Your task to perform on an android device: turn on javascript in the chrome app Image 0: 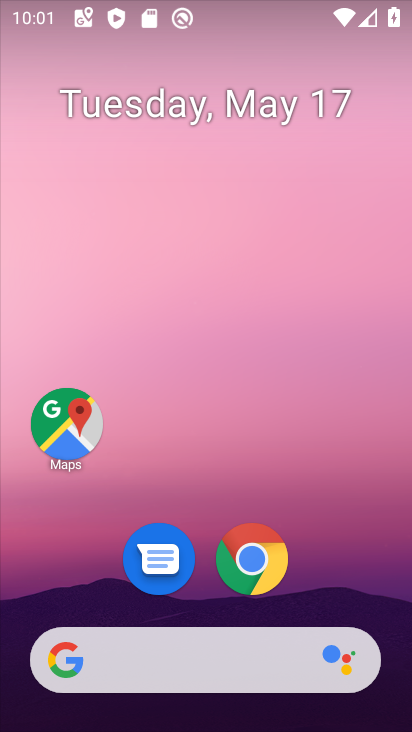
Step 0: click (271, 562)
Your task to perform on an android device: turn on javascript in the chrome app Image 1: 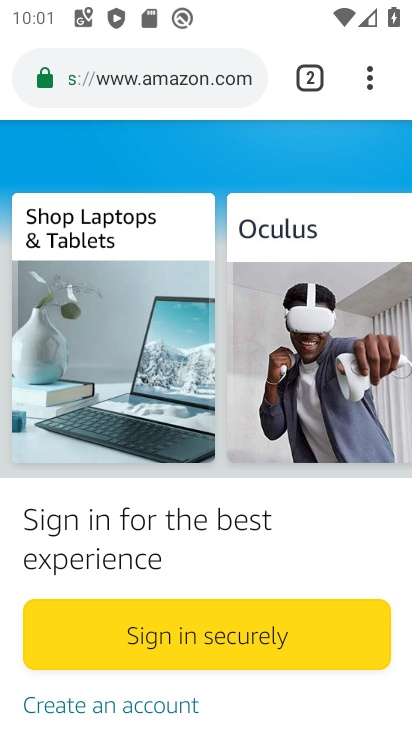
Step 1: click (374, 74)
Your task to perform on an android device: turn on javascript in the chrome app Image 2: 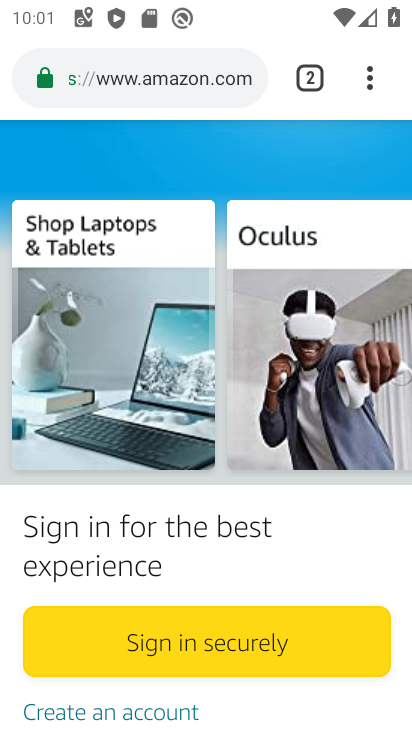
Step 2: click (370, 86)
Your task to perform on an android device: turn on javascript in the chrome app Image 3: 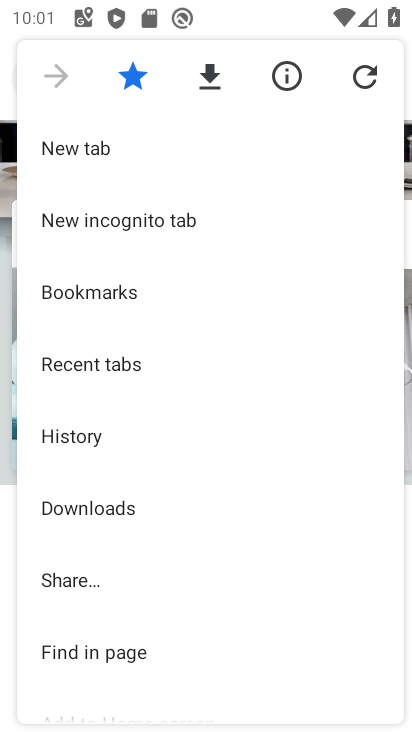
Step 3: drag from (159, 675) to (96, 82)
Your task to perform on an android device: turn on javascript in the chrome app Image 4: 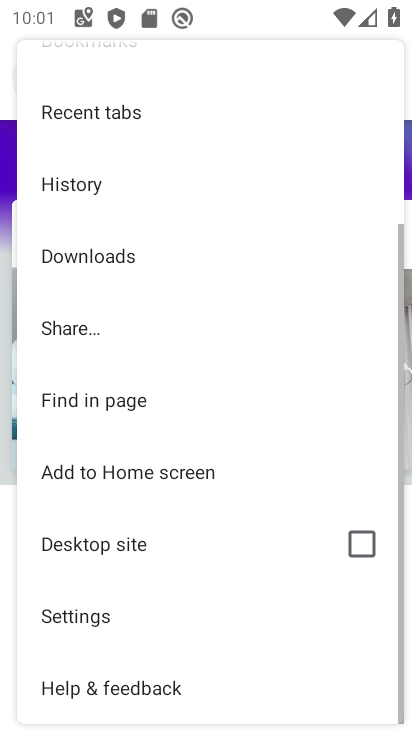
Step 4: click (75, 622)
Your task to perform on an android device: turn on javascript in the chrome app Image 5: 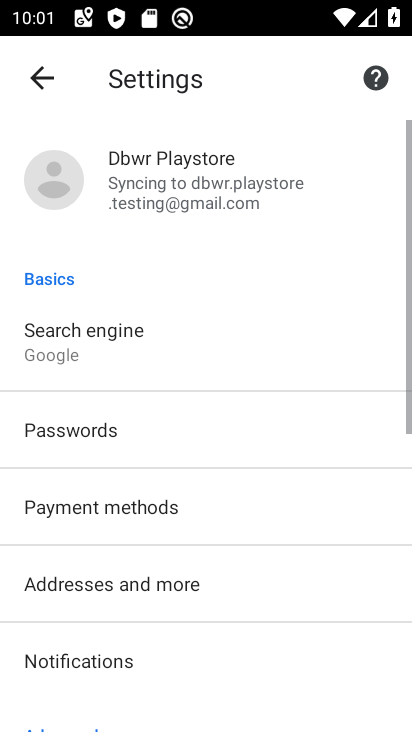
Step 5: drag from (217, 517) to (279, 6)
Your task to perform on an android device: turn on javascript in the chrome app Image 6: 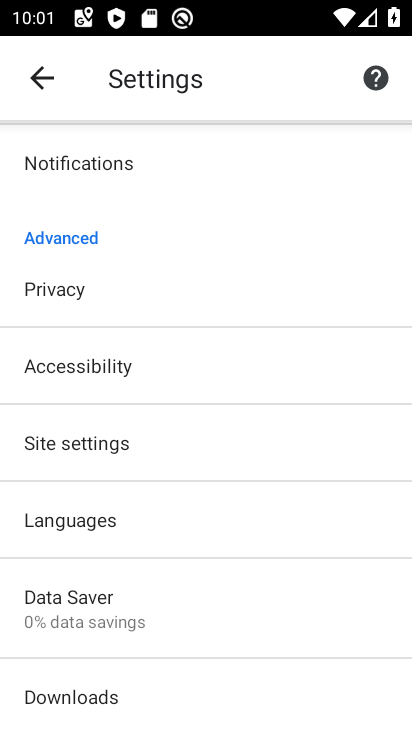
Step 6: click (112, 449)
Your task to perform on an android device: turn on javascript in the chrome app Image 7: 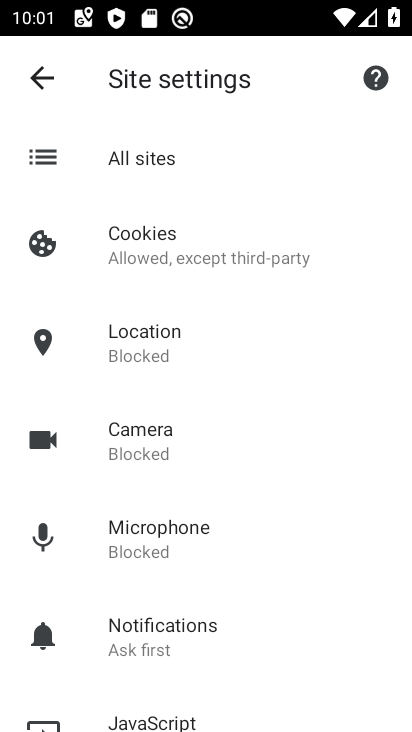
Step 7: drag from (246, 661) to (221, 168)
Your task to perform on an android device: turn on javascript in the chrome app Image 8: 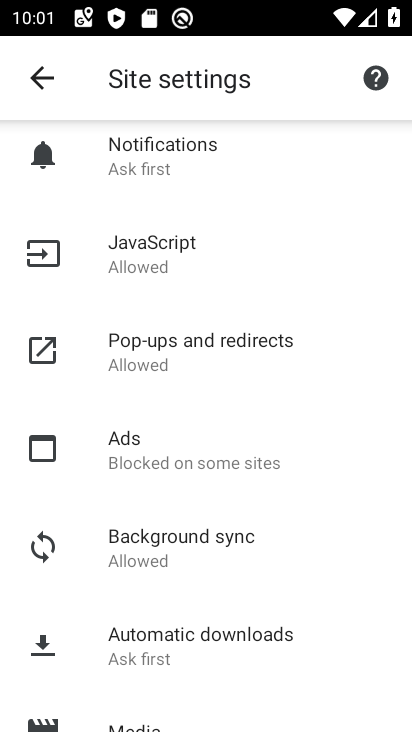
Step 8: click (113, 269)
Your task to perform on an android device: turn on javascript in the chrome app Image 9: 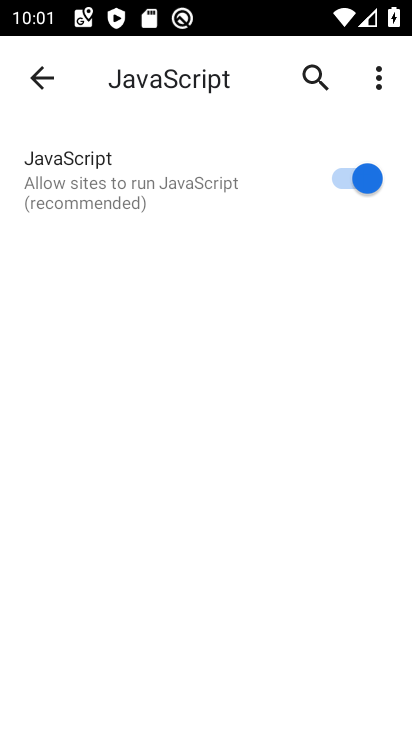
Step 9: task complete